Your task to perform on an android device: Search for Italian restaurants on Maps Image 0: 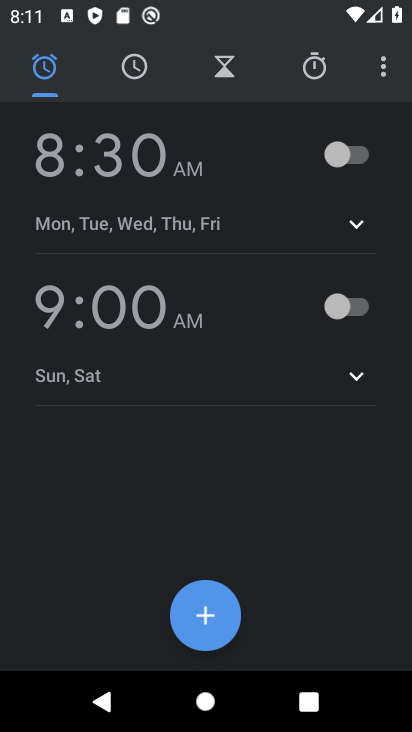
Step 0: press home button
Your task to perform on an android device: Search for Italian restaurants on Maps Image 1: 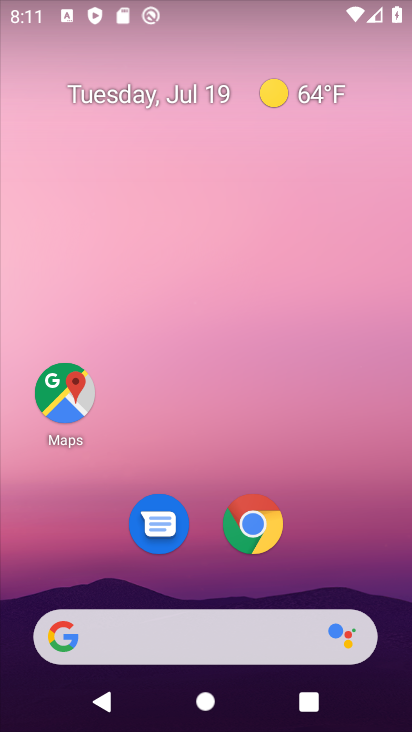
Step 1: click (61, 389)
Your task to perform on an android device: Search for Italian restaurants on Maps Image 2: 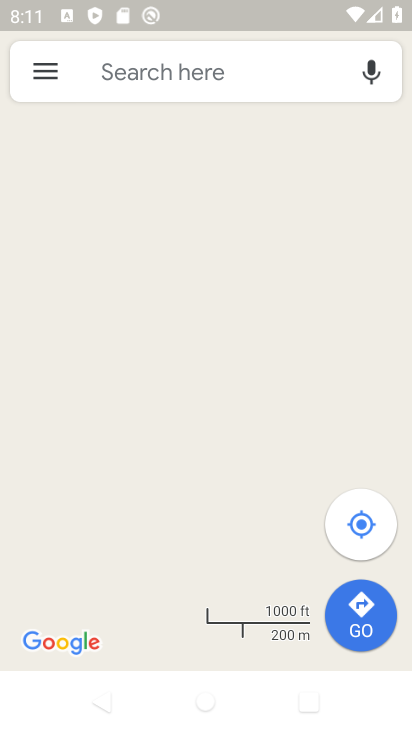
Step 2: click (244, 74)
Your task to perform on an android device: Search for Italian restaurants on Maps Image 3: 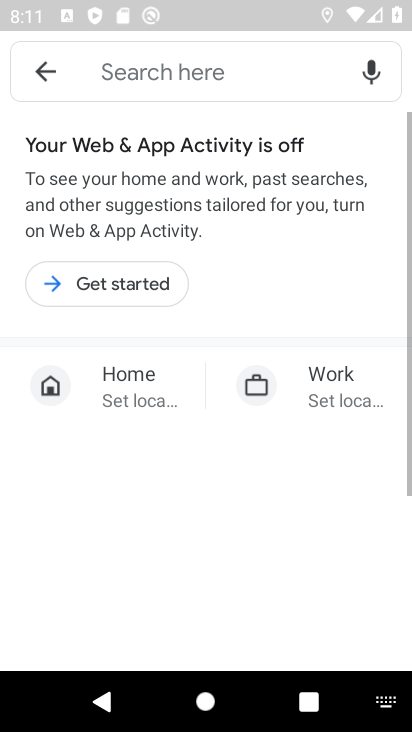
Step 3: click (145, 288)
Your task to perform on an android device: Search for Italian restaurants on Maps Image 4: 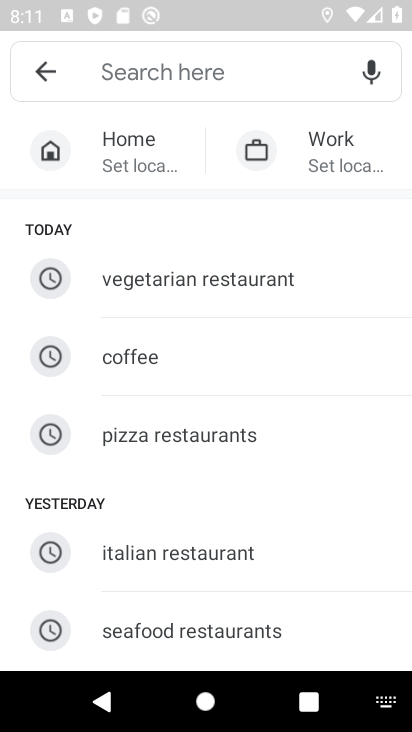
Step 4: click (181, 552)
Your task to perform on an android device: Search for Italian restaurants on Maps Image 5: 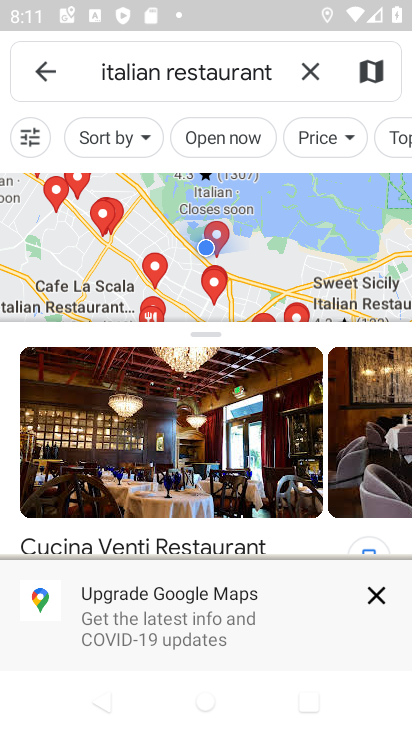
Step 5: task complete